Your task to perform on an android device: clear history in the chrome app Image 0: 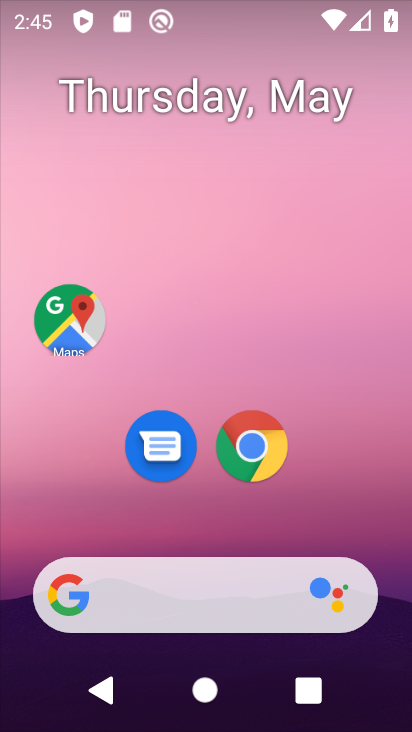
Step 0: click (243, 446)
Your task to perform on an android device: clear history in the chrome app Image 1: 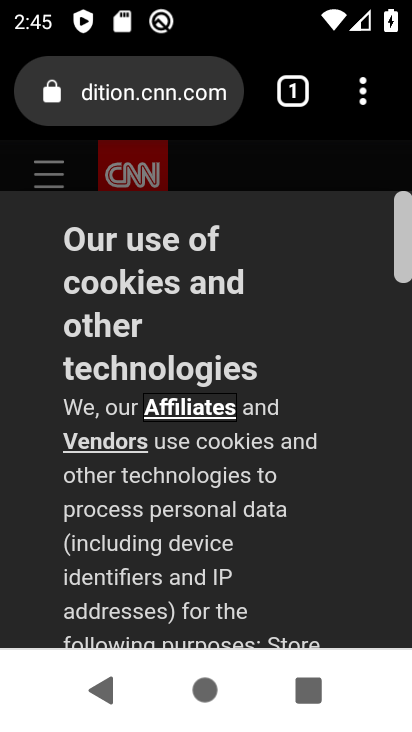
Step 1: click (364, 94)
Your task to perform on an android device: clear history in the chrome app Image 2: 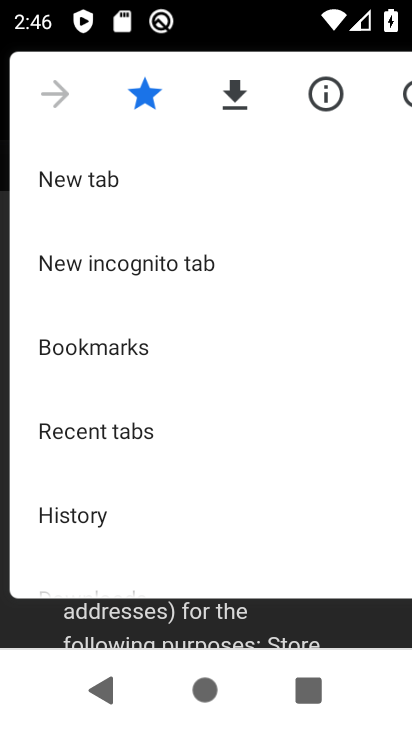
Step 2: drag from (213, 506) to (226, 338)
Your task to perform on an android device: clear history in the chrome app Image 3: 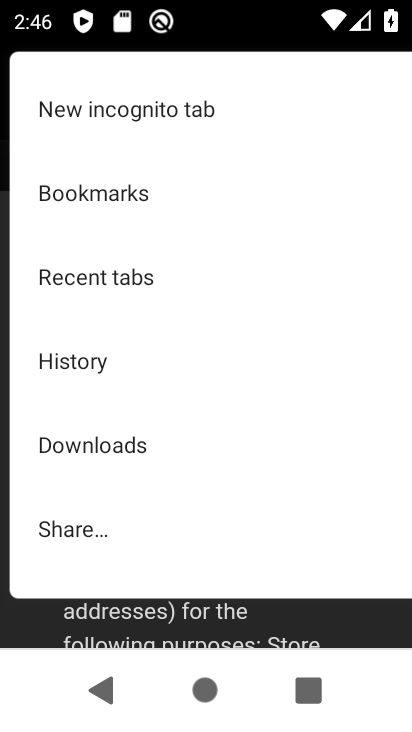
Step 3: click (82, 362)
Your task to perform on an android device: clear history in the chrome app Image 4: 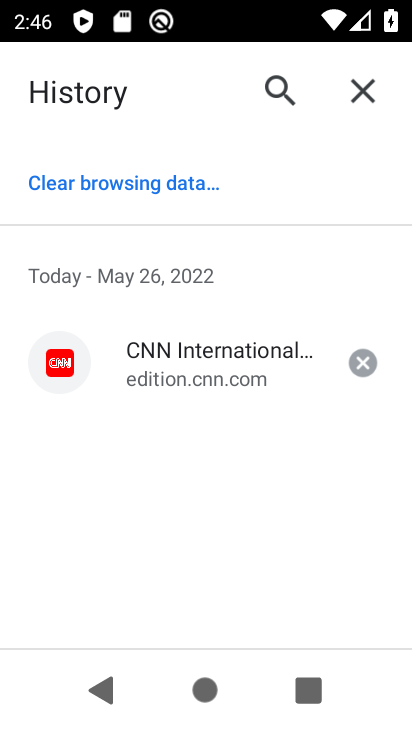
Step 4: click (99, 184)
Your task to perform on an android device: clear history in the chrome app Image 5: 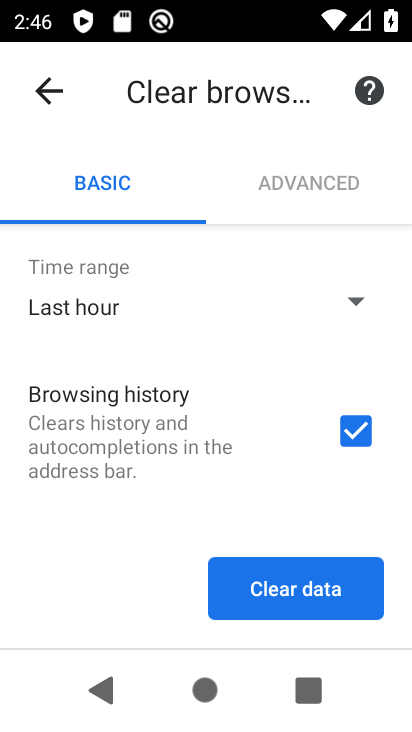
Step 5: drag from (198, 484) to (204, 200)
Your task to perform on an android device: clear history in the chrome app Image 6: 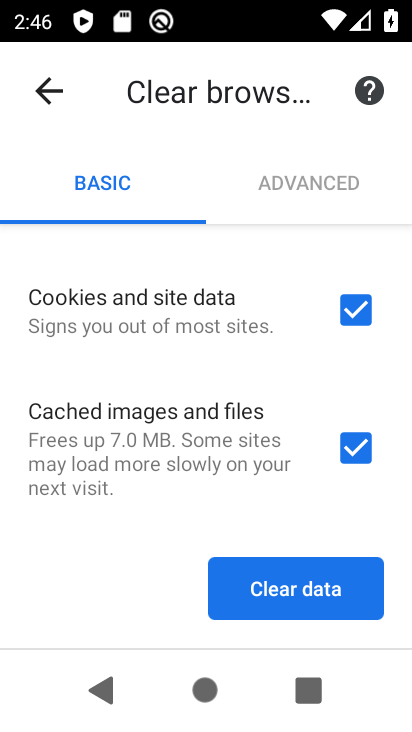
Step 6: click (351, 307)
Your task to perform on an android device: clear history in the chrome app Image 7: 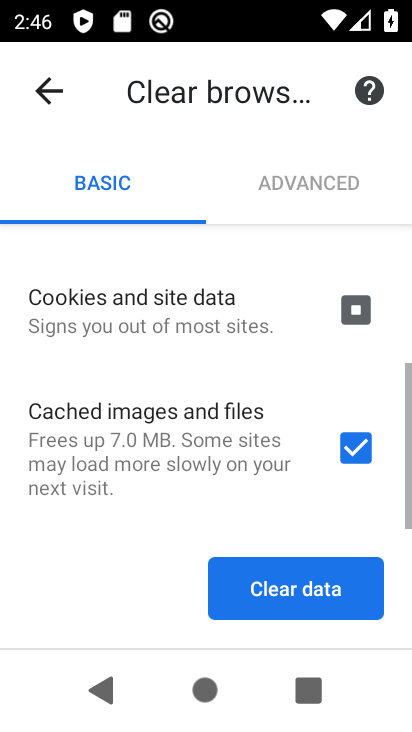
Step 7: click (339, 450)
Your task to perform on an android device: clear history in the chrome app Image 8: 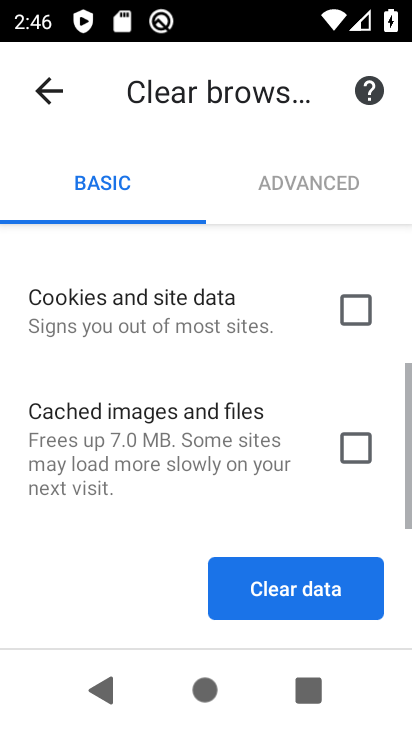
Step 8: click (308, 603)
Your task to perform on an android device: clear history in the chrome app Image 9: 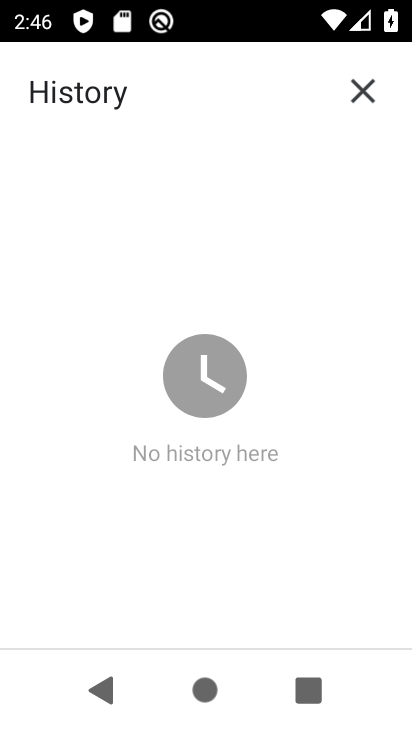
Step 9: task complete